Your task to perform on an android device: change alarm snooze length Image 0: 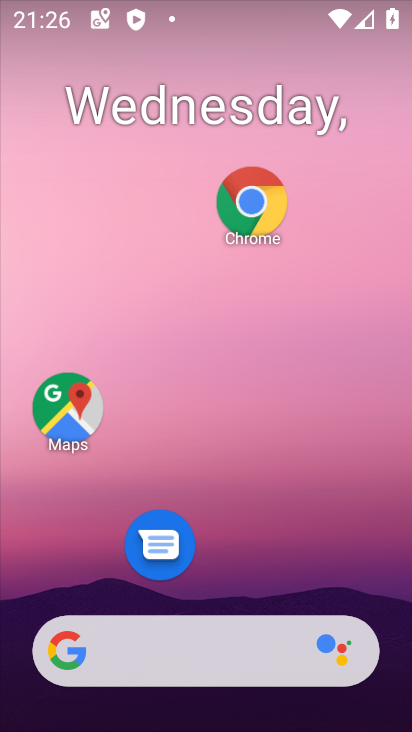
Step 0: drag from (215, 602) to (212, 106)
Your task to perform on an android device: change alarm snooze length Image 1: 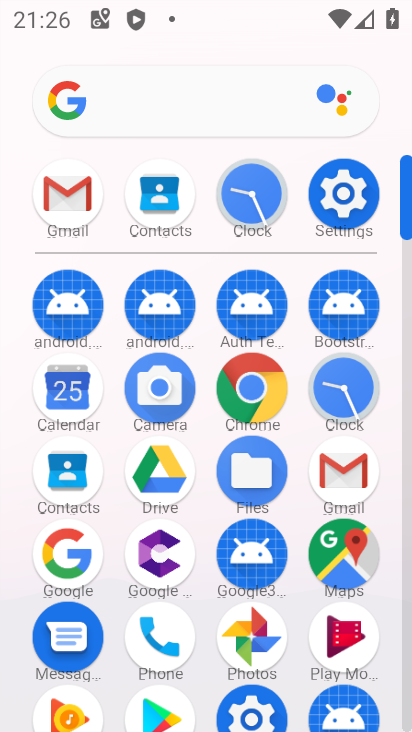
Step 1: click (263, 210)
Your task to perform on an android device: change alarm snooze length Image 2: 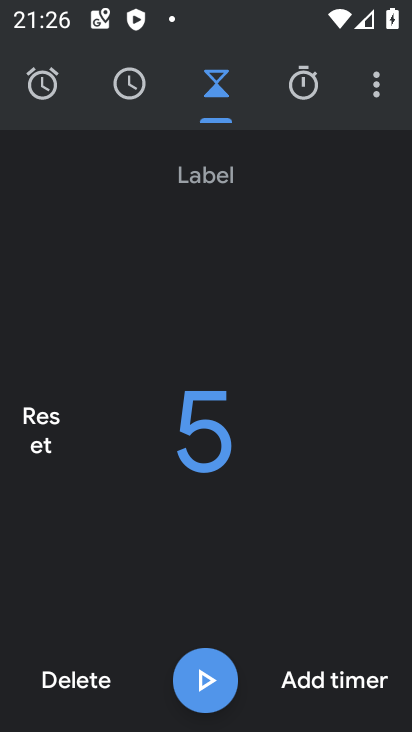
Step 2: click (367, 79)
Your task to perform on an android device: change alarm snooze length Image 3: 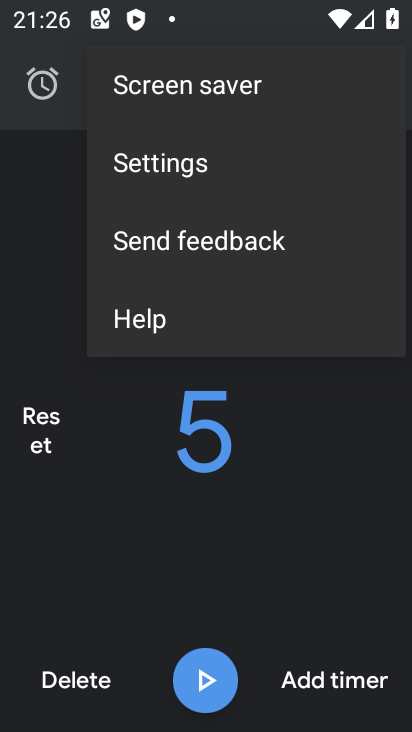
Step 3: click (160, 162)
Your task to perform on an android device: change alarm snooze length Image 4: 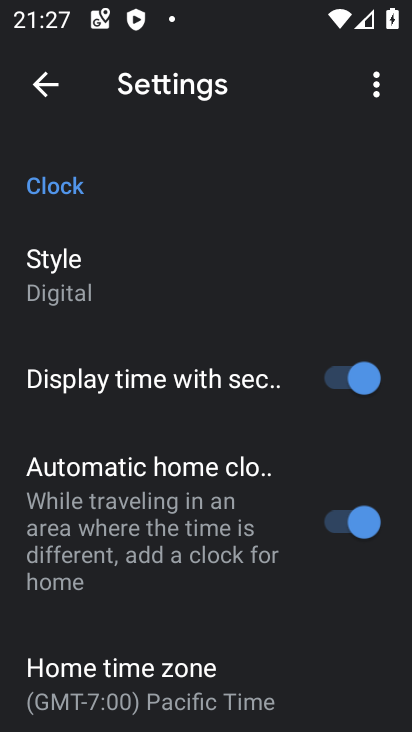
Step 4: drag from (122, 612) to (282, 183)
Your task to perform on an android device: change alarm snooze length Image 5: 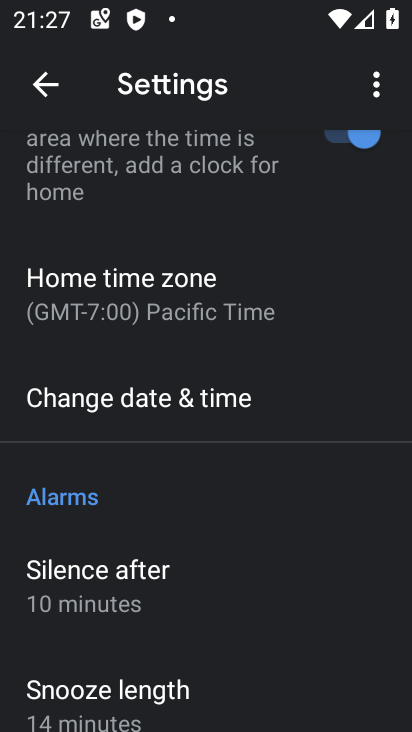
Step 5: click (99, 696)
Your task to perform on an android device: change alarm snooze length Image 6: 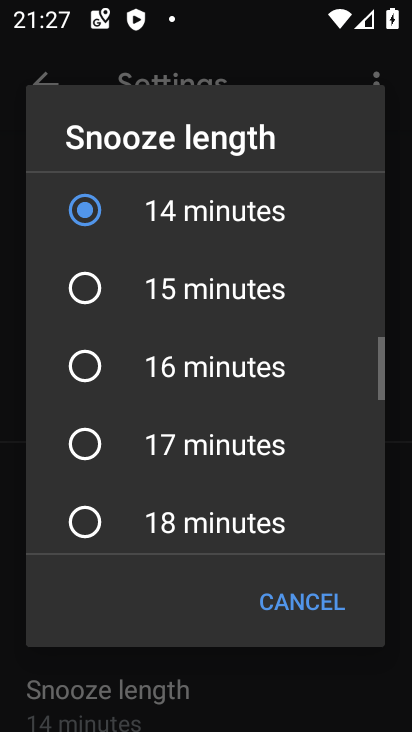
Step 6: click (184, 520)
Your task to perform on an android device: change alarm snooze length Image 7: 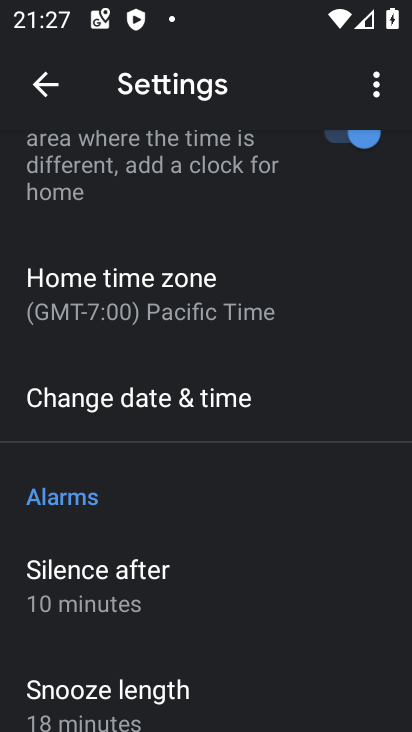
Step 7: task complete